Your task to perform on an android device: Go to sound settings Image 0: 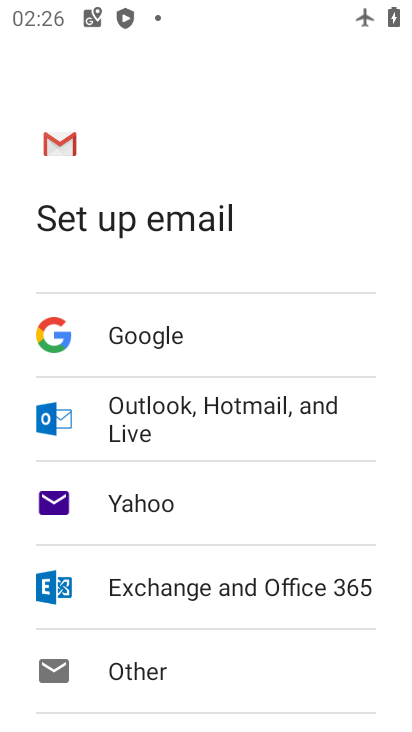
Step 0: press home button
Your task to perform on an android device: Go to sound settings Image 1: 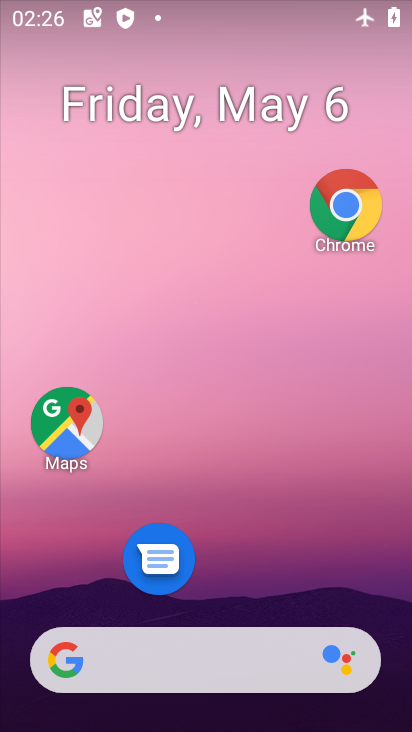
Step 1: drag from (203, 664) to (299, 41)
Your task to perform on an android device: Go to sound settings Image 2: 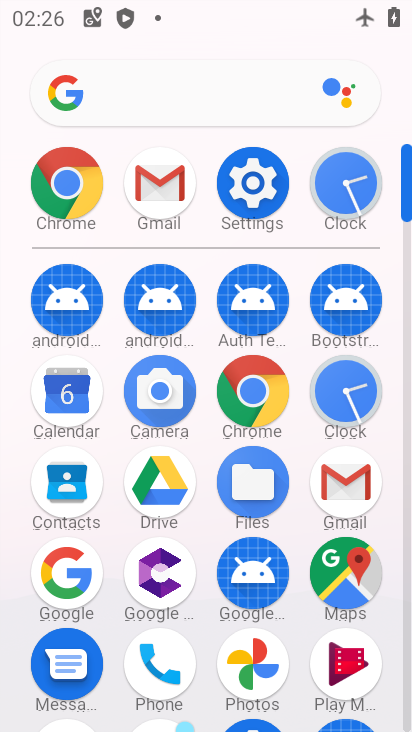
Step 2: click (247, 199)
Your task to perform on an android device: Go to sound settings Image 3: 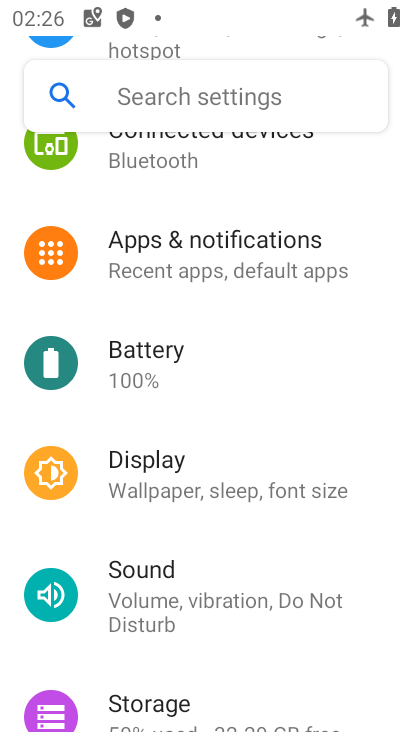
Step 3: click (149, 588)
Your task to perform on an android device: Go to sound settings Image 4: 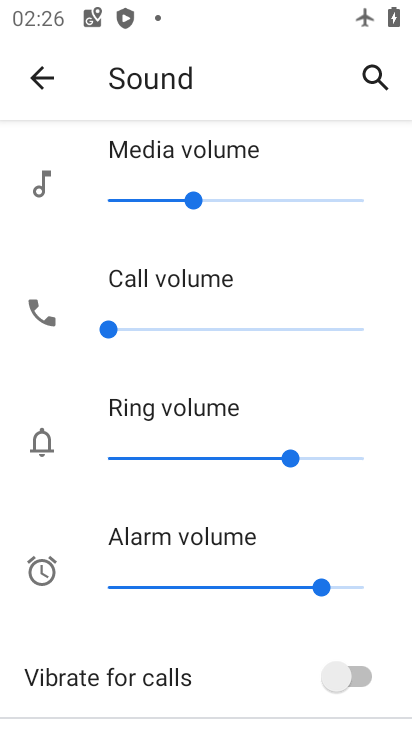
Step 4: task complete